Your task to perform on an android device: What's the weather today? Image 0: 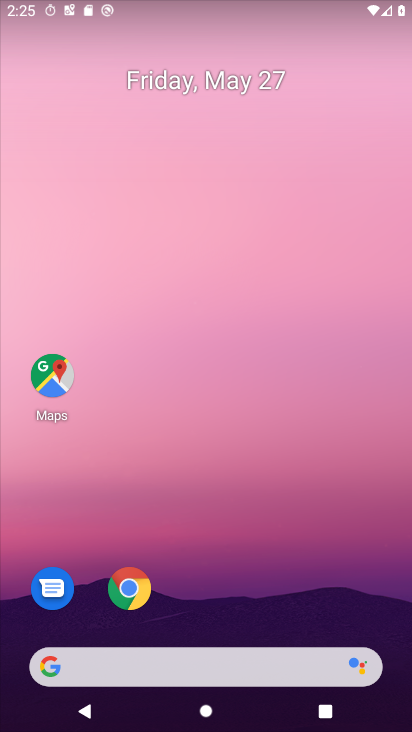
Step 0: drag from (271, 585) to (214, 3)
Your task to perform on an android device: What's the weather today? Image 1: 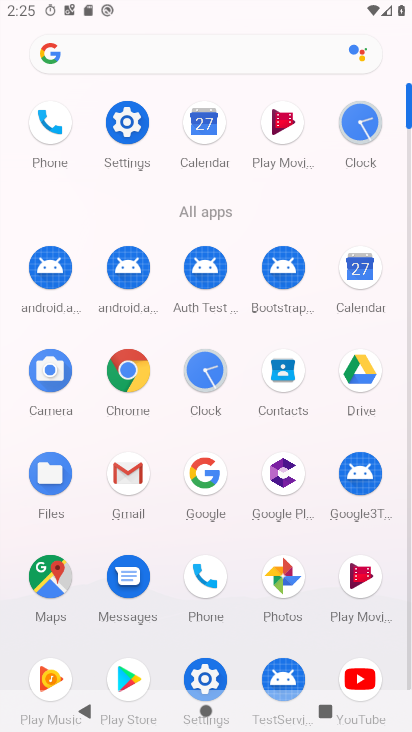
Step 1: click (157, 59)
Your task to perform on an android device: What's the weather today? Image 2: 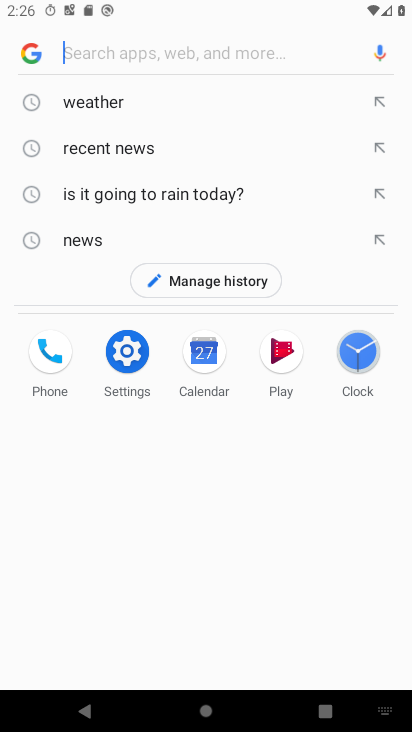
Step 2: type "what's the weather today "
Your task to perform on an android device: What's the weather today? Image 3: 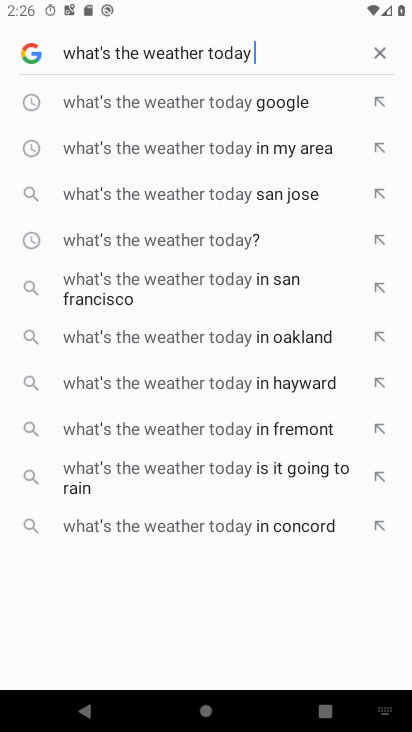
Step 3: click (215, 239)
Your task to perform on an android device: What's the weather today? Image 4: 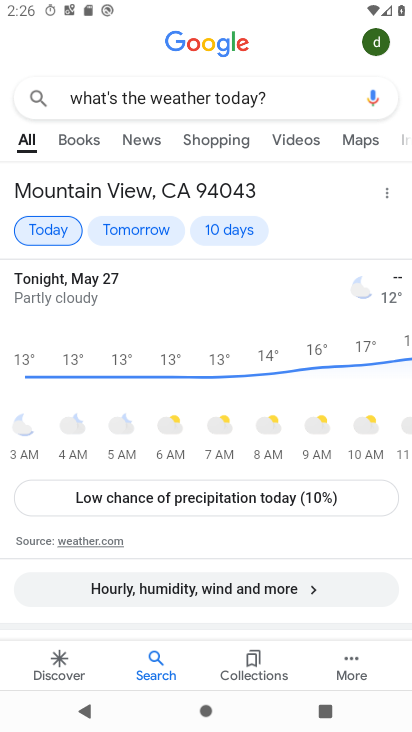
Step 4: task complete